Your task to perform on an android device: search for starred emails in the gmail app Image 0: 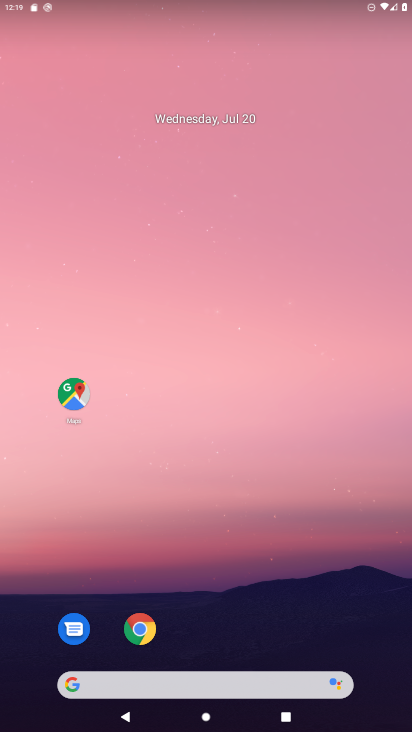
Step 0: drag from (216, 547) to (230, 163)
Your task to perform on an android device: search for starred emails in the gmail app Image 1: 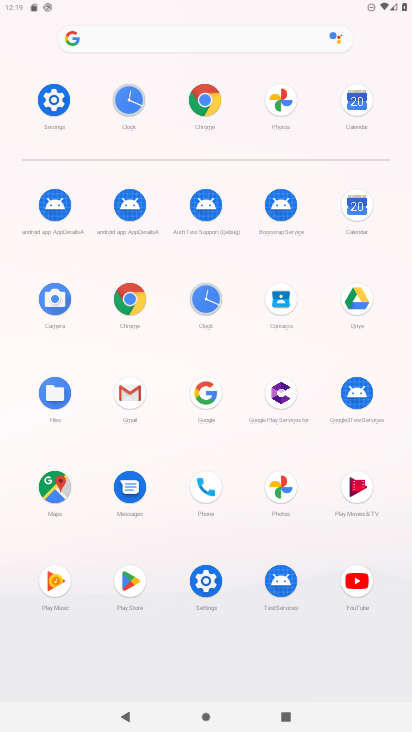
Step 1: click (121, 401)
Your task to perform on an android device: search for starred emails in the gmail app Image 2: 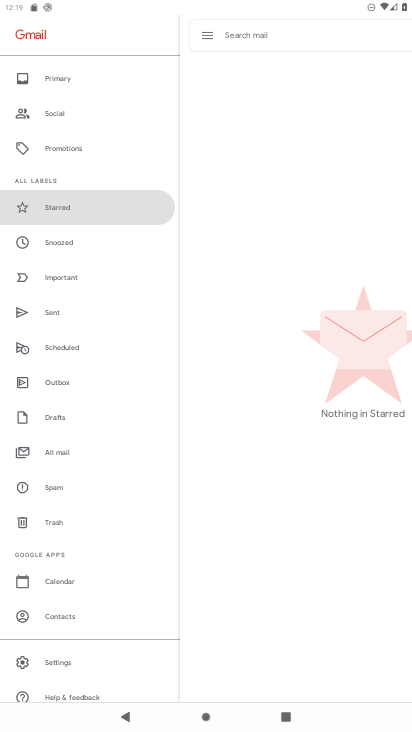
Step 2: click (252, 376)
Your task to perform on an android device: search for starred emails in the gmail app Image 3: 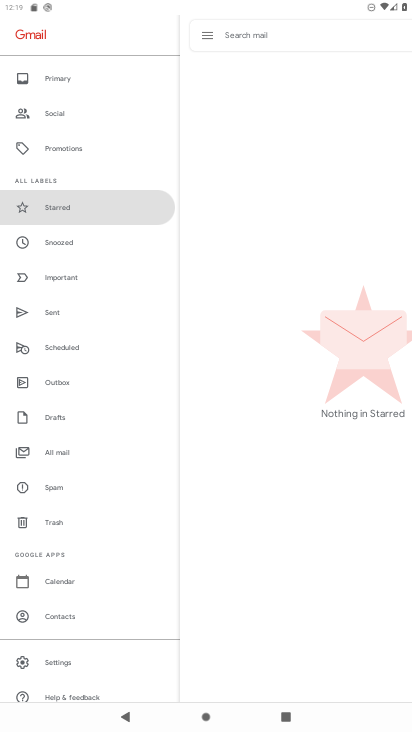
Step 3: click (322, 275)
Your task to perform on an android device: search for starred emails in the gmail app Image 4: 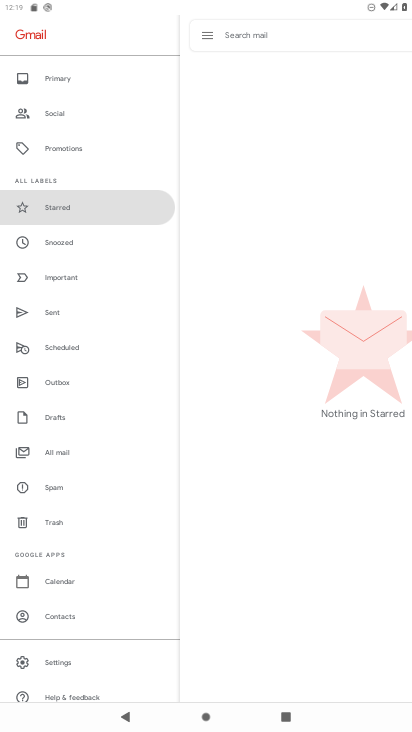
Step 4: click (314, 266)
Your task to perform on an android device: search for starred emails in the gmail app Image 5: 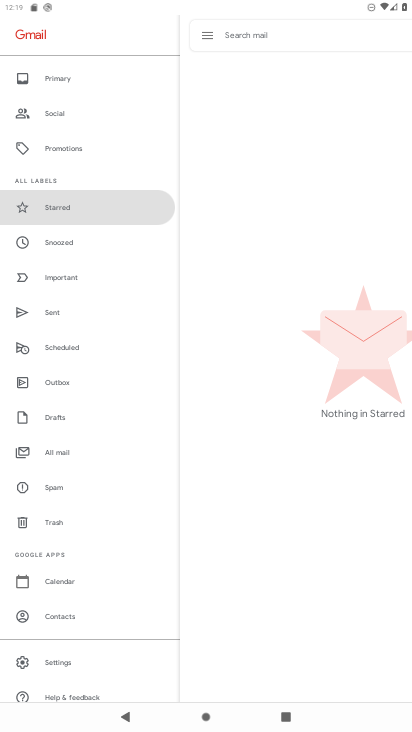
Step 5: click (62, 200)
Your task to perform on an android device: search for starred emails in the gmail app Image 6: 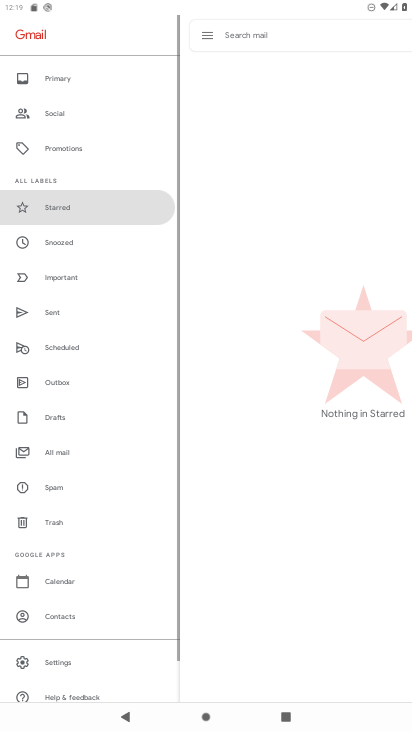
Step 6: task complete